Your task to perform on an android device: turn on airplane mode Image 0: 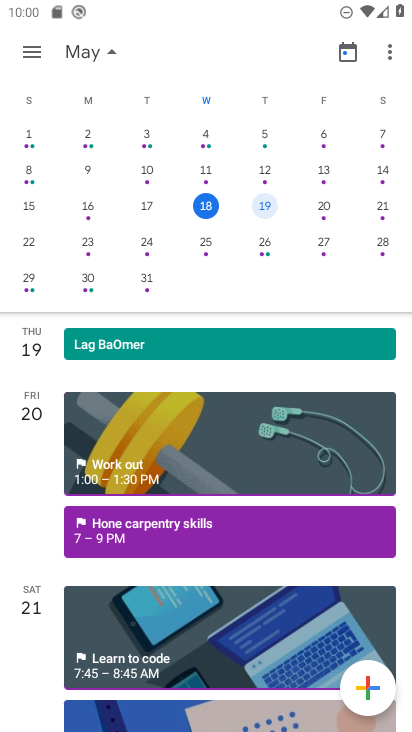
Step 0: press home button
Your task to perform on an android device: turn on airplane mode Image 1: 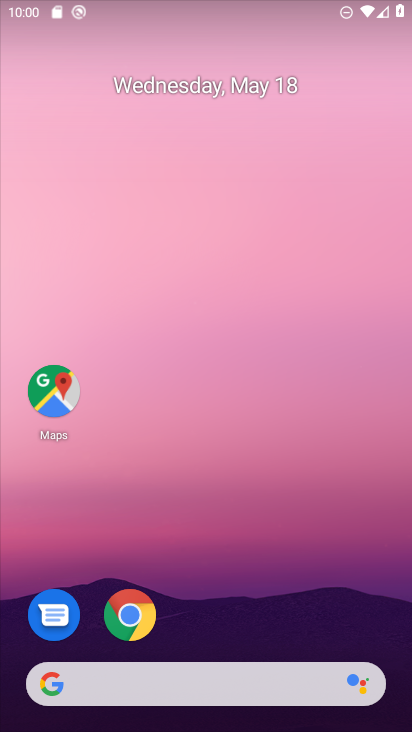
Step 1: drag from (239, 562) to (250, 154)
Your task to perform on an android device: turn on airplane mode Image 2: 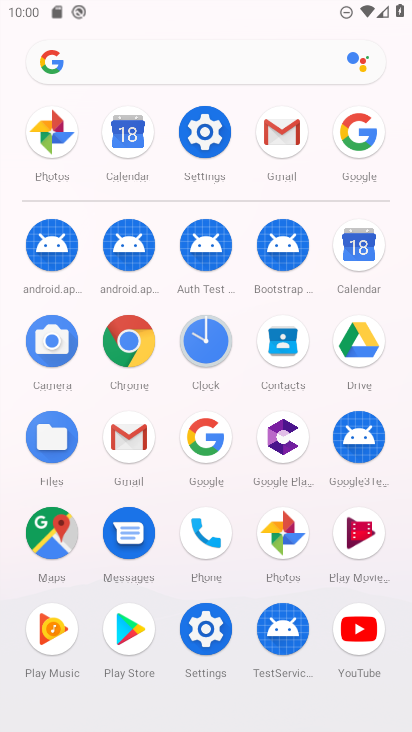
Step 2: click (199, 134)
Your task to perform on an android device: turn on airplane mode Image 3: 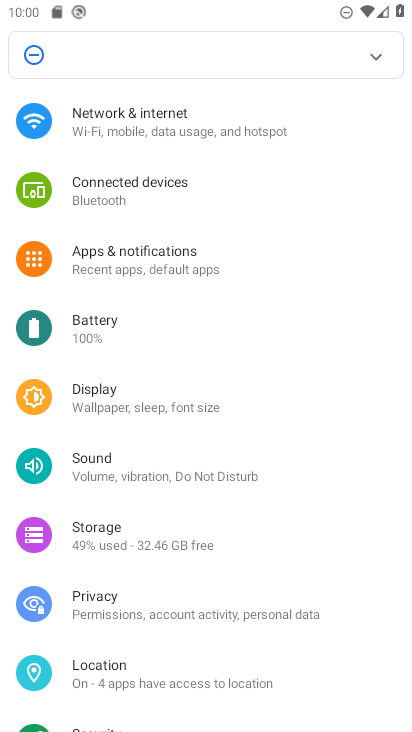
Step 3: click (199, 134)
Your task to perform on an android device: turn on airplane mode Image 4: 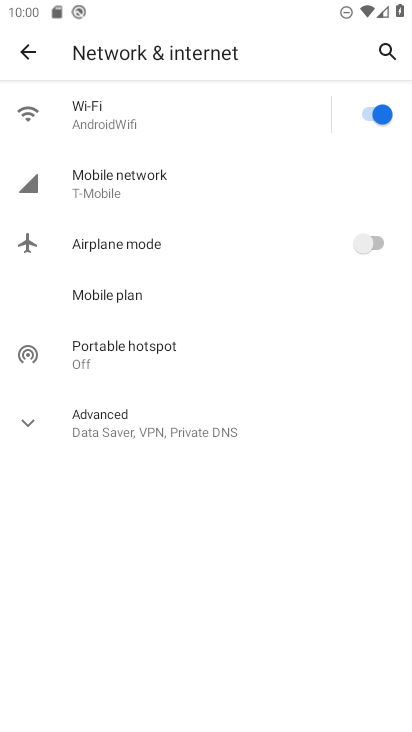
Step 4: click (365, 247)
Your task to perform on an android device: turn on airplane mode Image 5: 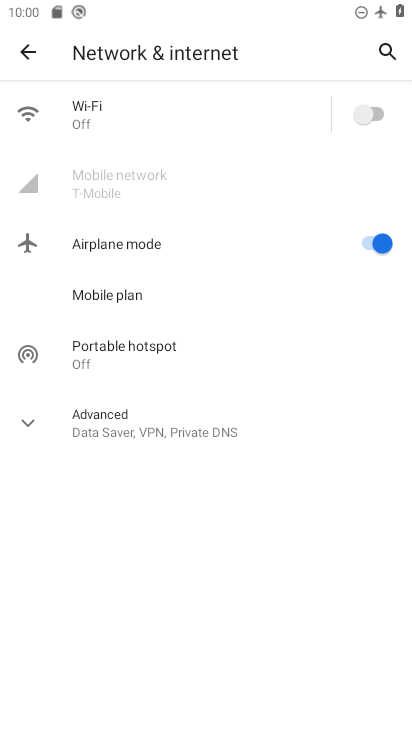
Step 5: task complete